Your task to perform on an android device: Go to notification settings Image 0: 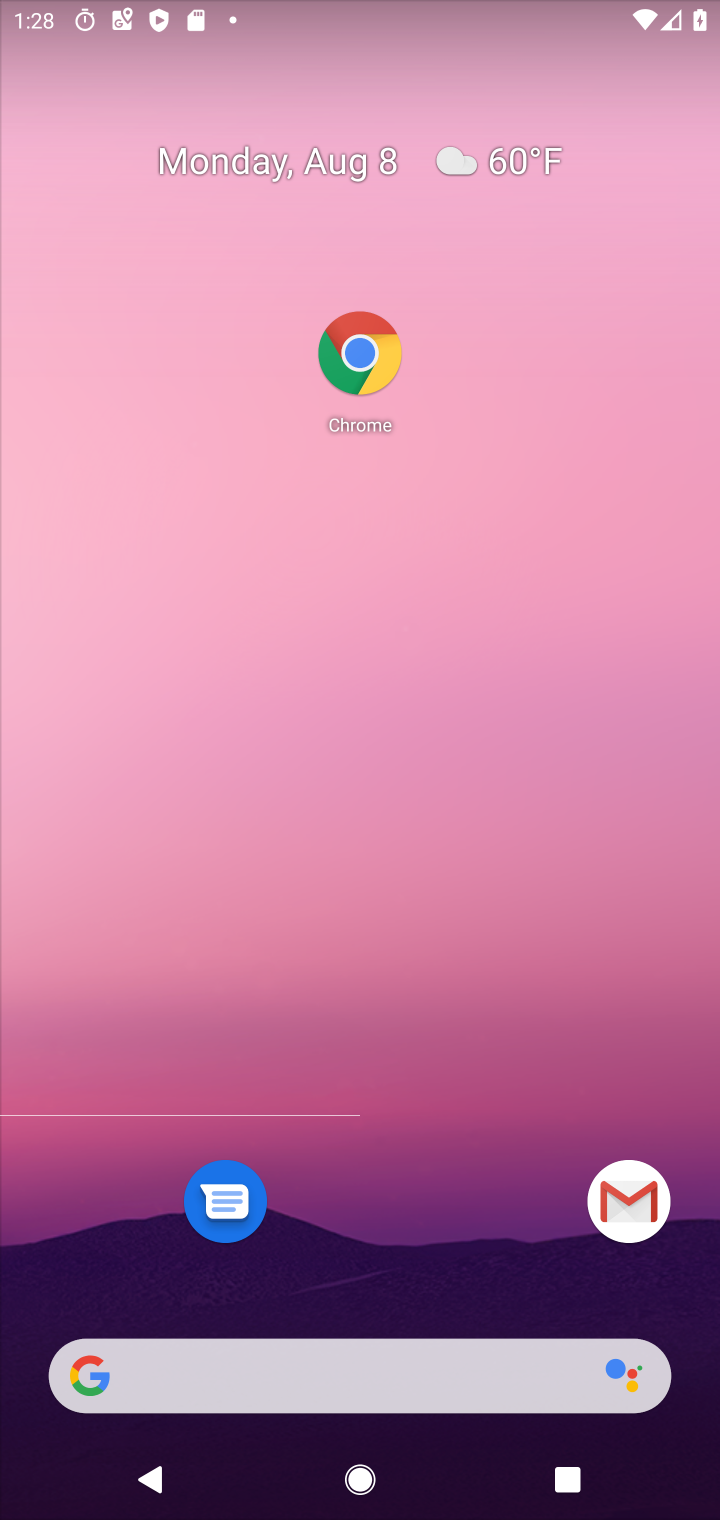
Step 0: drag from (523, 1421) to (302, 320)
Your task to perform on an android device: Go to notification settings Image 1: 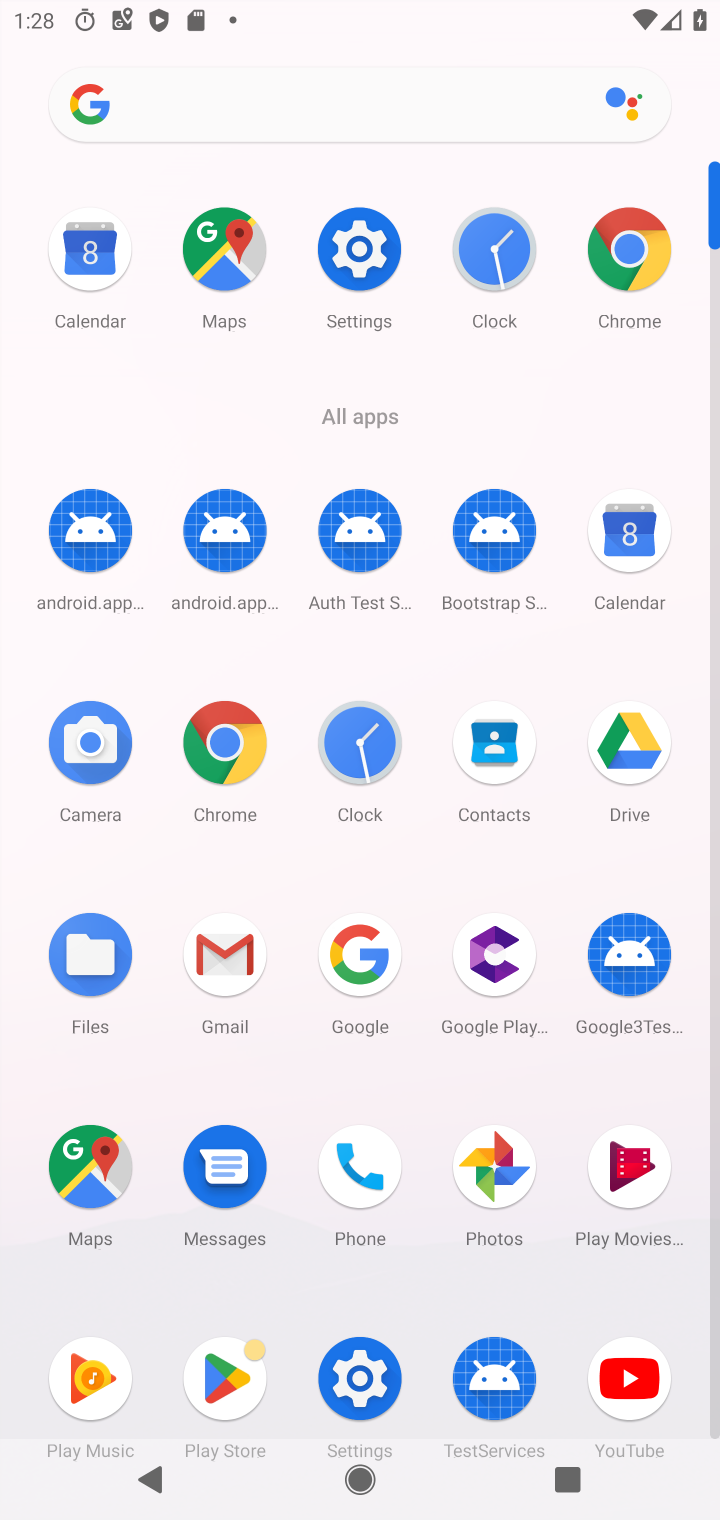
Step 1: click (357, 1365)
Your task to perform on an android device: Go to notification settings Image 2: 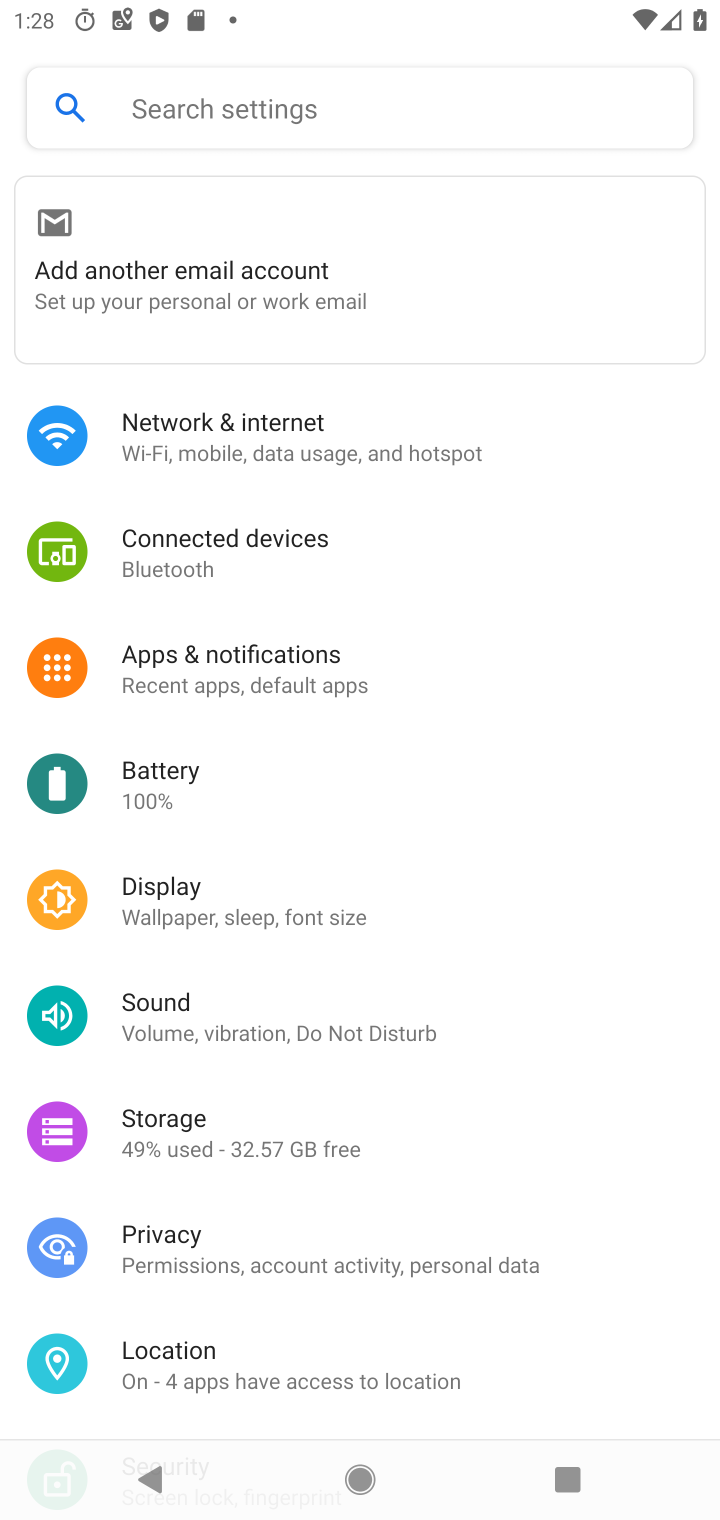
Step 2: click (301, 107)
Your task to perform on an android device: Go to notification settings Image 3: 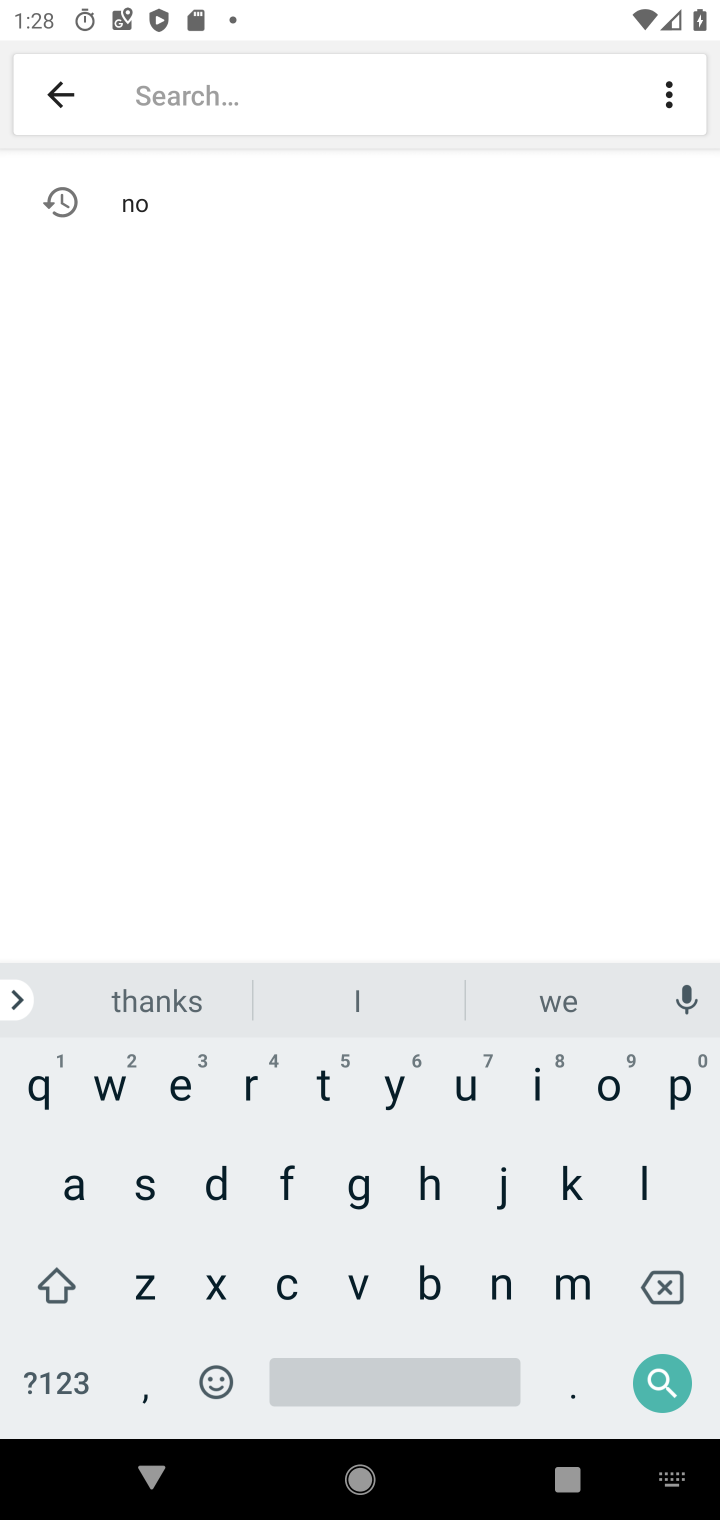
Step 3: click (148, 198)
Your task to perform on an android device: Go to notification settings Image 4: 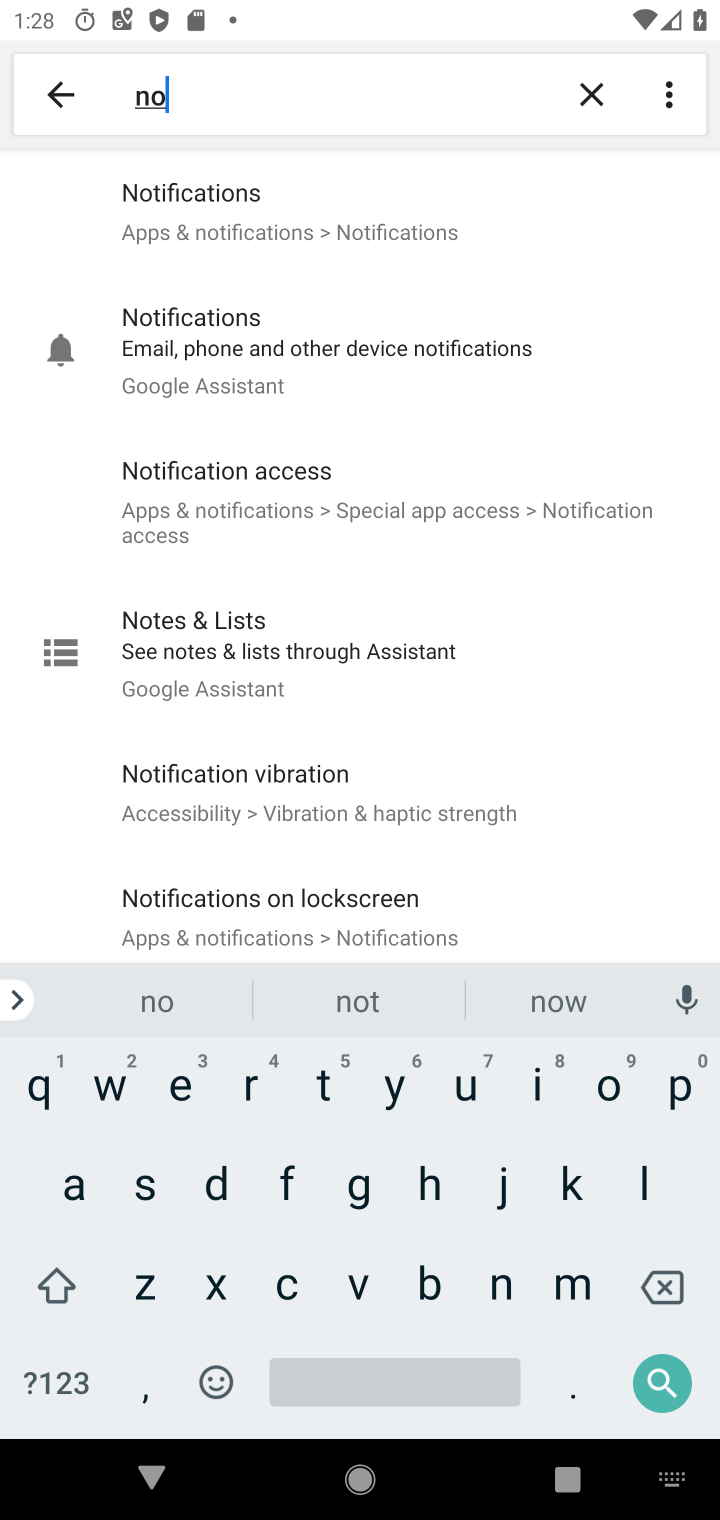
Step 4: click (230, 220)
Your task to perform on an android device: Go to notification settings Image 5: 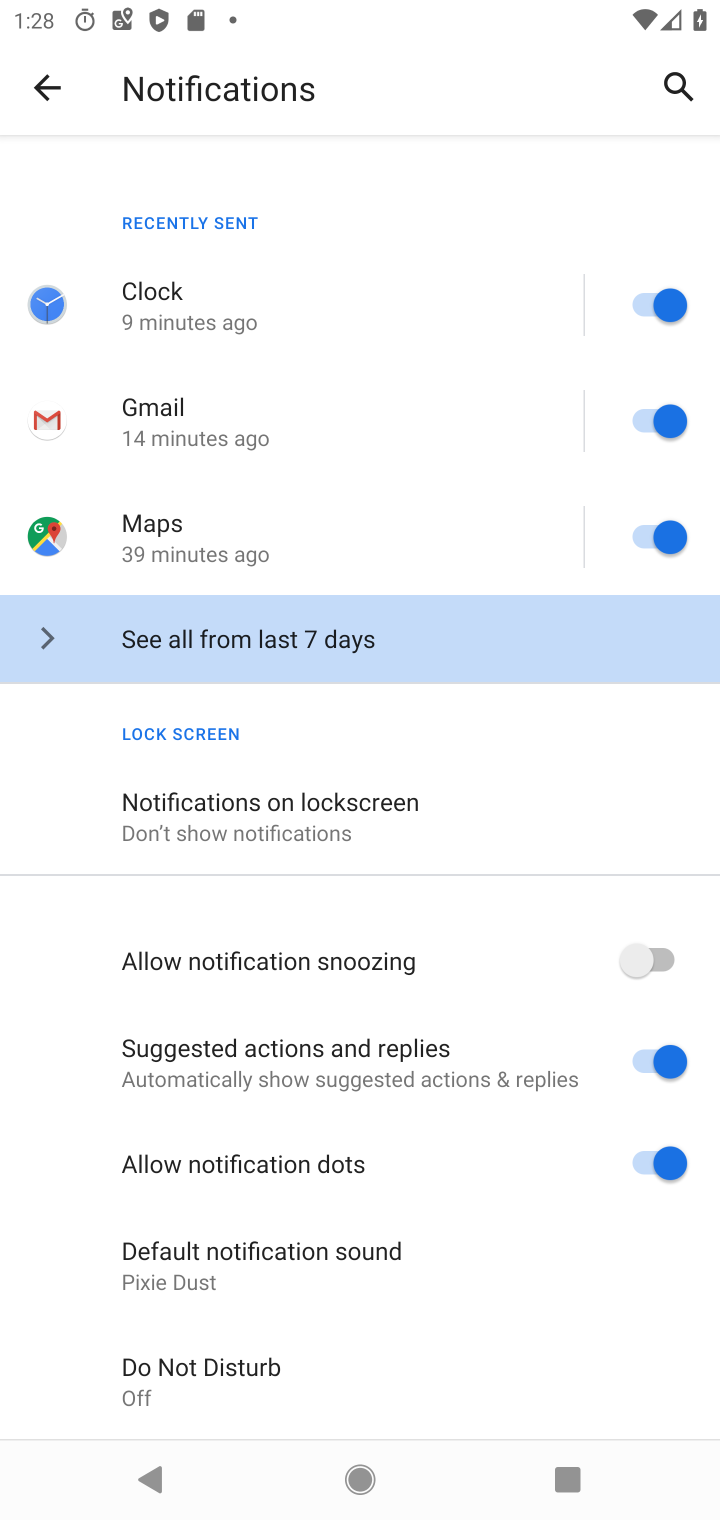
Step 5: click (193, 790)
Your task to perform on an android device: Go to notification settings Image 6: 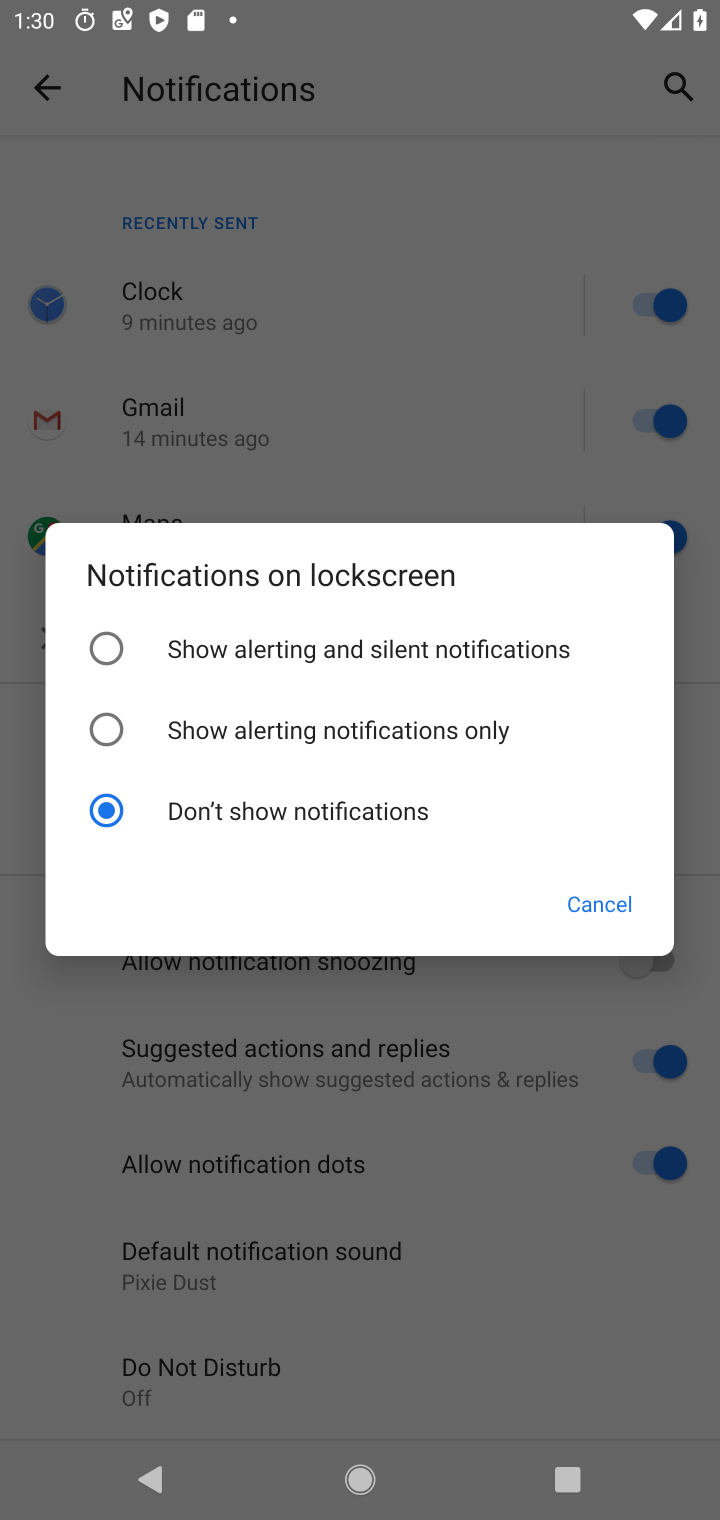
Step 6: task complete